Your task to perform on an android device: toggle notification dots Image 0: 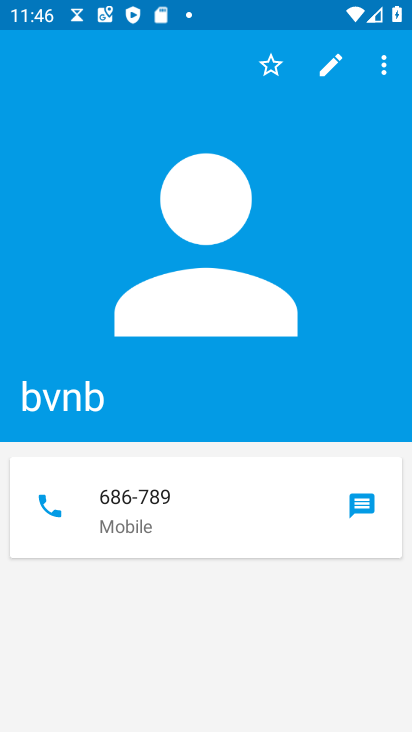
Step 0: press home button
Your task to perform on an android device: toggle notification dots Image 1: 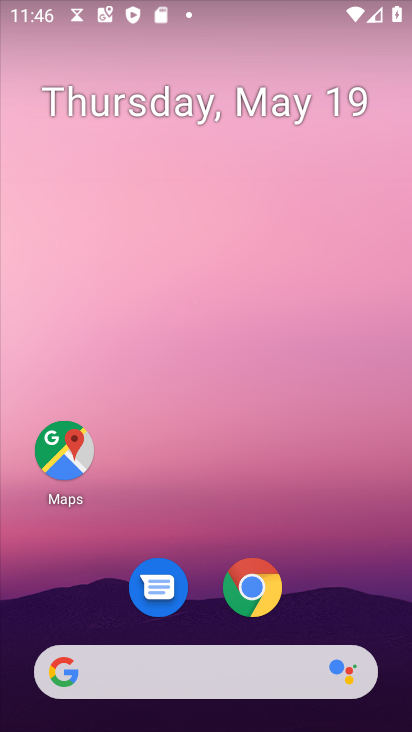
Step 1: drag from (190, 676) to (97, 7)
Your task to perform on an android device: toggle notification dots Image 2: 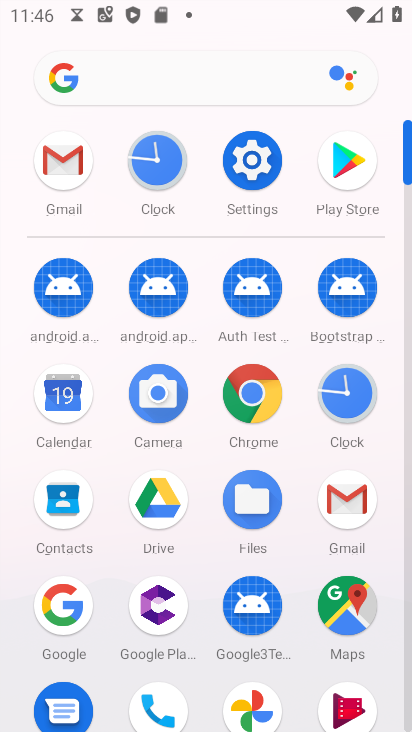
Step 2: click (227, 178)
Your task to perform on an android device: toggle notification dots Image 3: 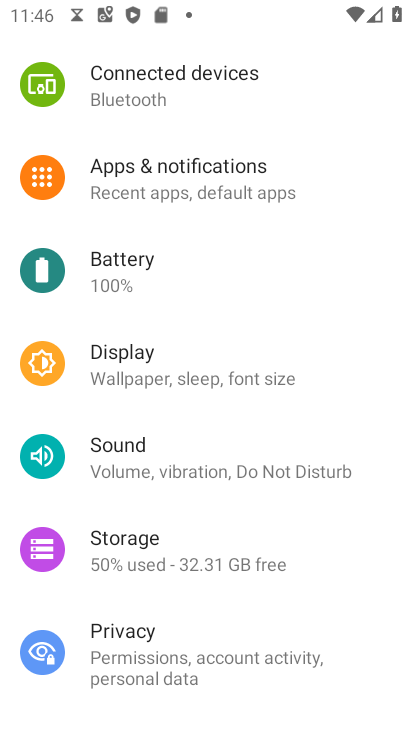
Step 3: click (119, 152)
Your task to perform on an android device: toggle notification dots Image 4: 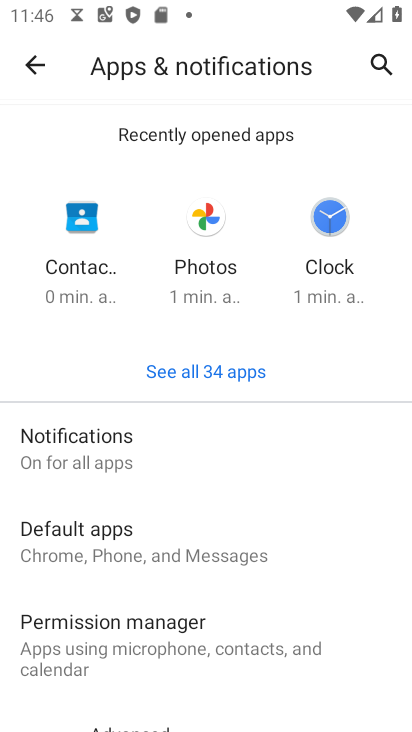
Step 4: click (142, 458)
Your task to perform on an android device: toggle notification dots Image 5: 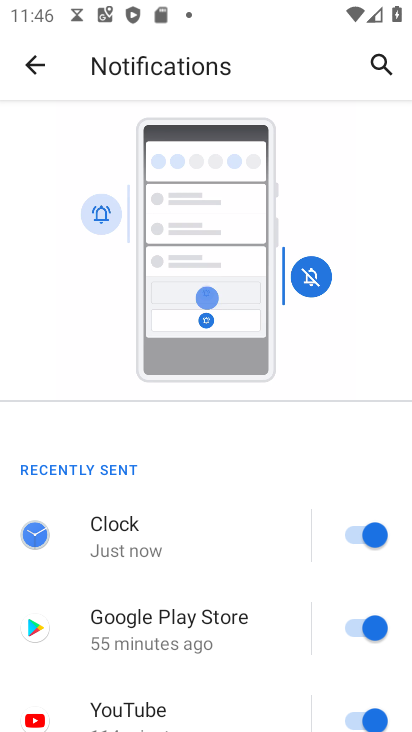
Step 5: drag from (134, 540) to (147, 64)
Your task to perform on an android device: toggle notification dots Image 6: 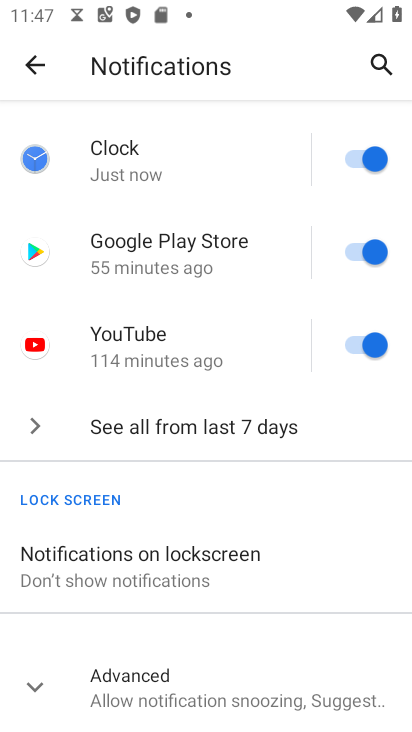
Step 6: drag from (248, 503) to (224, 118)
Your task to perform on an android device: toggle notification dots Image 7: 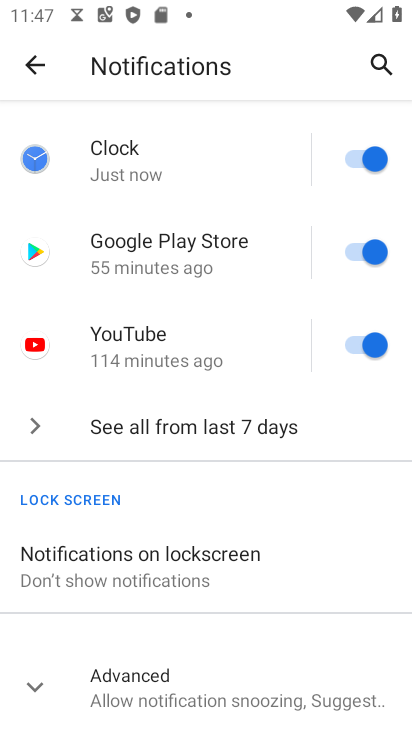
Step 7: click (193, 677)
Your task to perform on an android device: toggle notification dots Image 8: 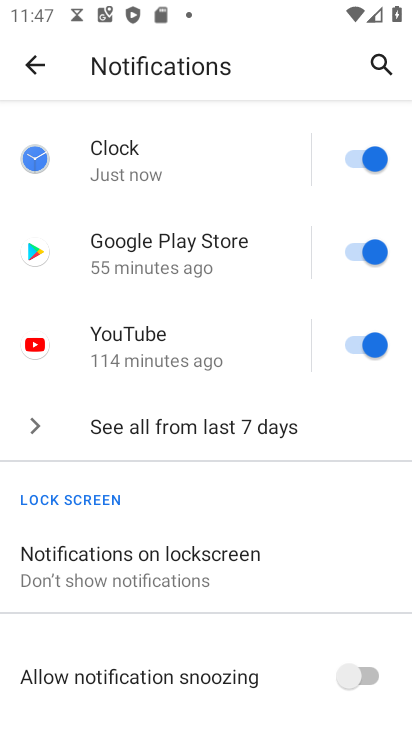
Step 8: drag from (196, 623) to (155, 163)
Your task to perform on an android device: toggle notification dots Image 9: 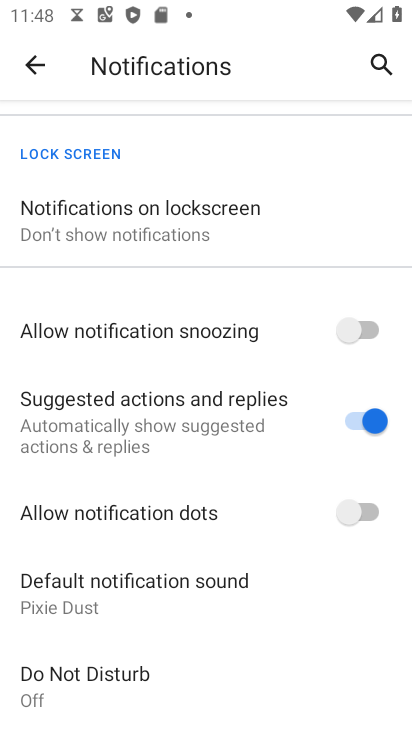
Step 9: click (348, 507)
Your task to perform on an android device: toggle notification dots Image 10: 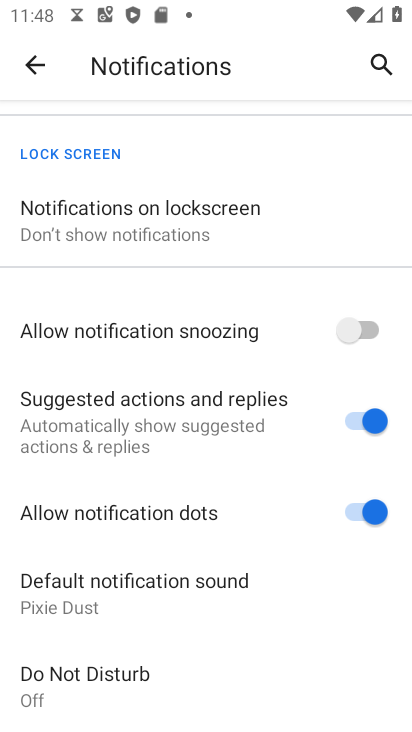
Step 10: task complete